Your task to perform on an android device: delete location history Image 0: 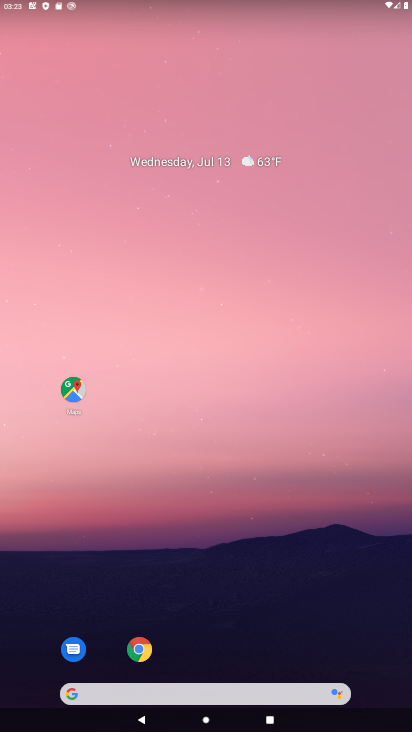
Step 0: click (74, 392)
Your task to perform on an android device: delete location history Image 1: 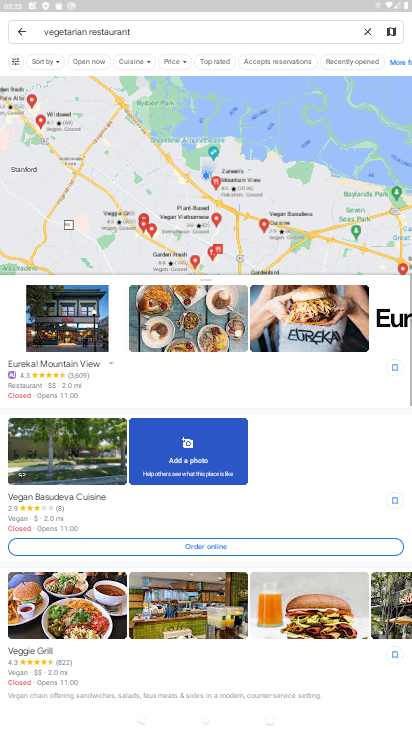
Step 1: click (18, 20)
Your task to perform on an android device: delete location history Image 2: 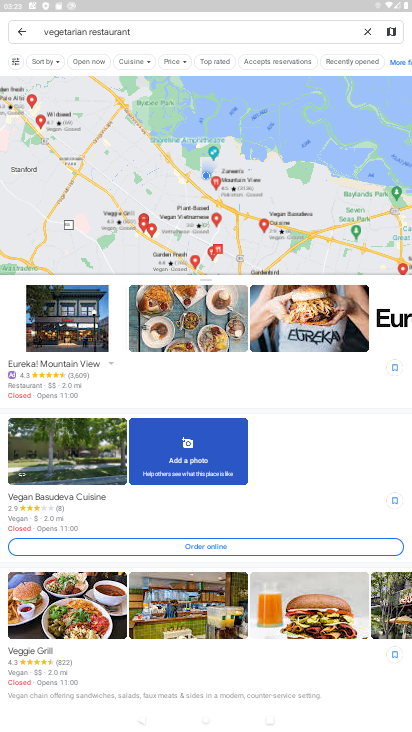
Step 2: click (20, 38)
Your task to perform on an android device: delete location history Image 3: 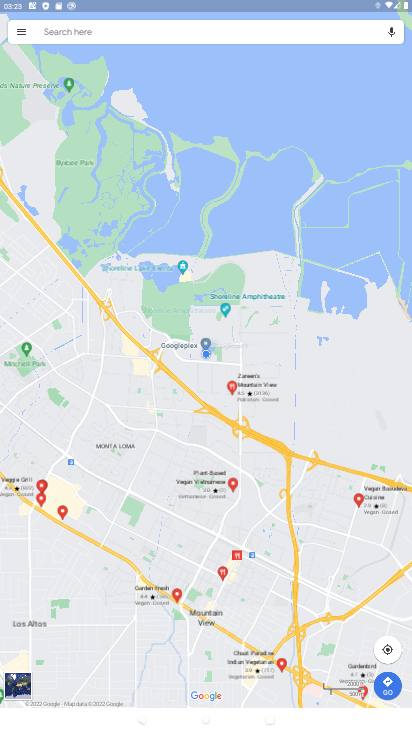
Step 3: click (20, 38)
Your task to perform on an android device: delete location history Image 4: 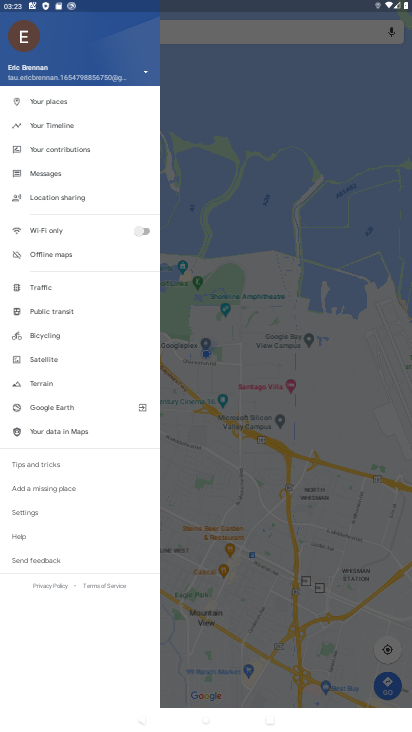
Step 4: click (50, 121)
Your task to perform on an android device: delete location history Image 5: 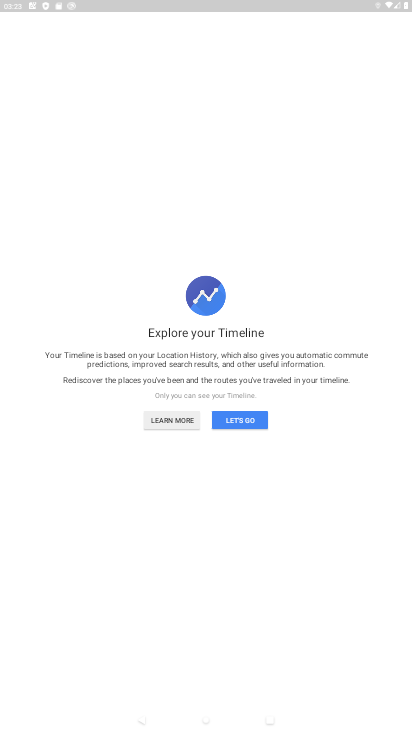
Step 5: click (229, 422)
Your task to perform on an android device: delete location history Image 6: 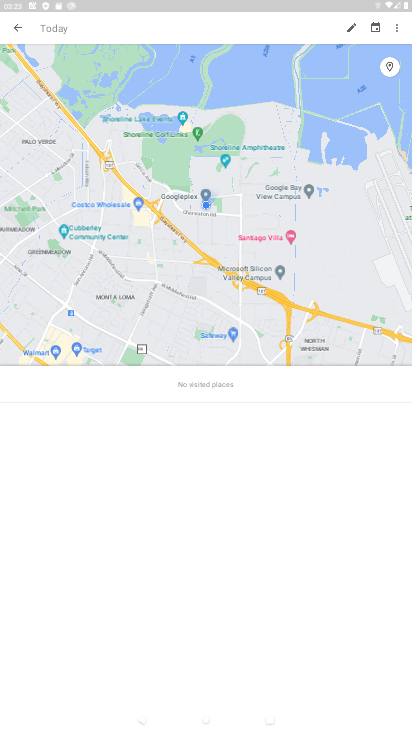
Step 6: click (391, 30)
Your task to perform on an android device: delete location history Image 7: 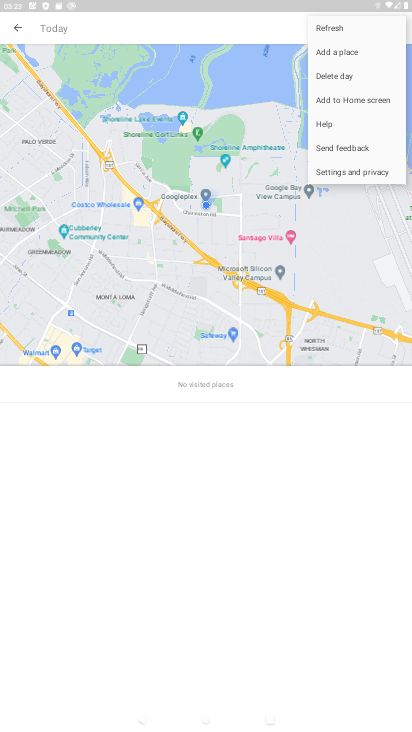
Step 7: click (325, 168)
Your task to perform on an android device: delete location history Image 8: 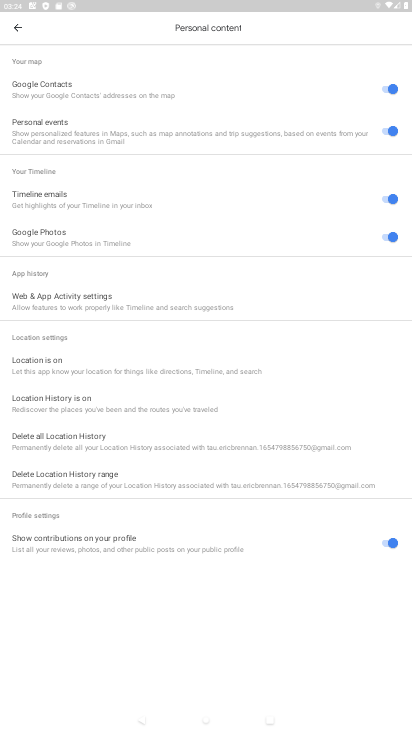
Step 8: click (113, 444)
Your task to perform on an android device: delete location history Image 9: 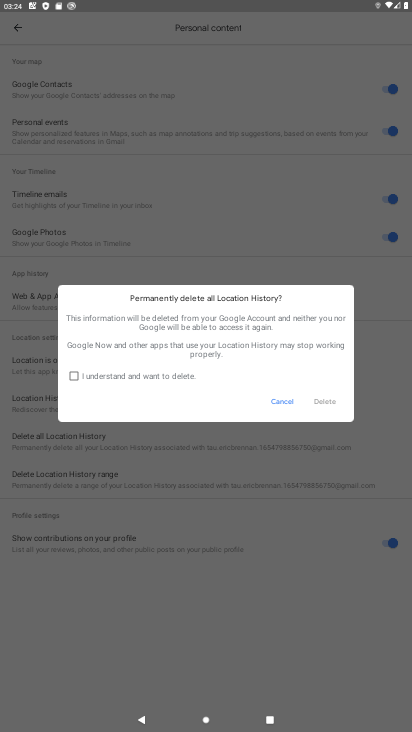
Step 9: click (120, 372)
Your task to perform on an android device: delete location history Image 10: 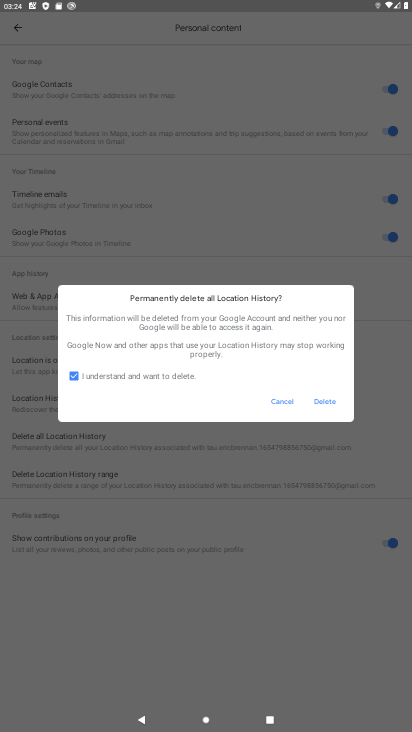
Step 10: click (324, 404)
Your task to perform on an android device: delete location history Image 11: 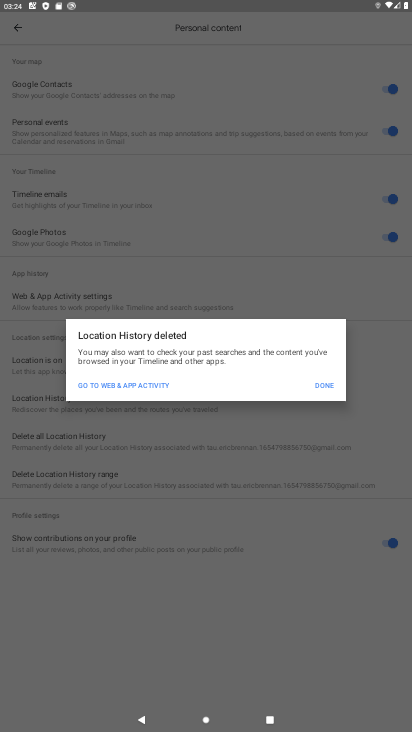
Step 11: click (324, 385)
Your task to perform on an android device: delete location history Image 12: 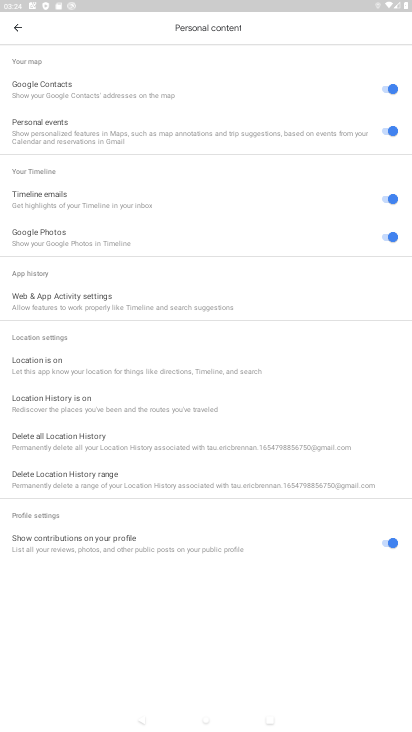
Step 12: task complete